Your task to perform on an android device: Do I have any events today? Image 0: 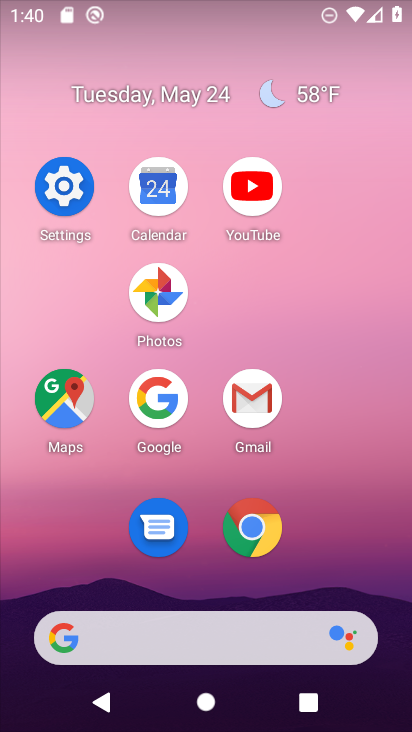
Step 0: click (169, 184)
Your task to perform on an android device: Do I have any events today? Image 1: 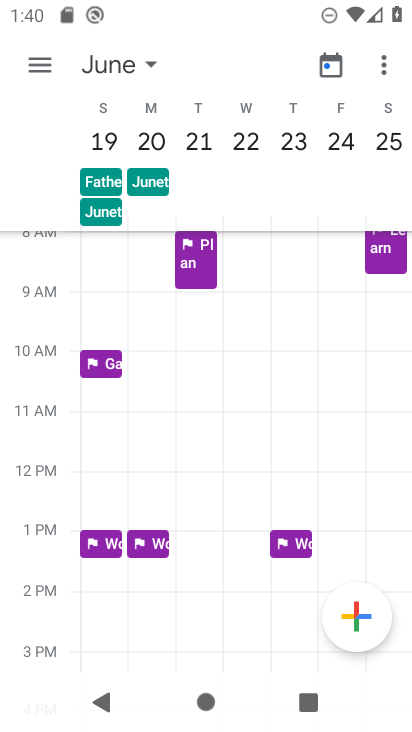
Step 1: click (103, 66)
Your task to perform on an android device: Do I have any events today? Image 2: 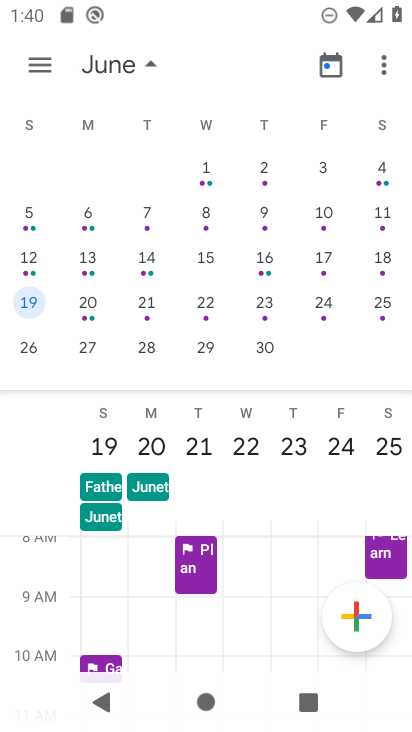
Step 2: drag from (26, 214) to (408, 731)
Your task to perform on an android device: Do I have any events today? Image 3: 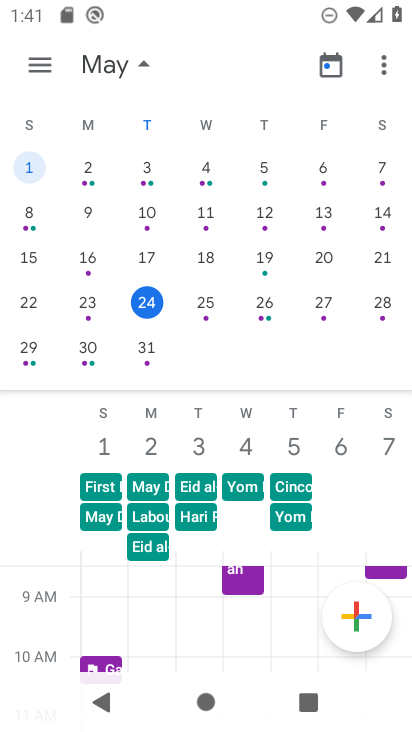
Step 3: click (214, 295)
Your task to perform on an android device: Do I have any events today? Image 4: 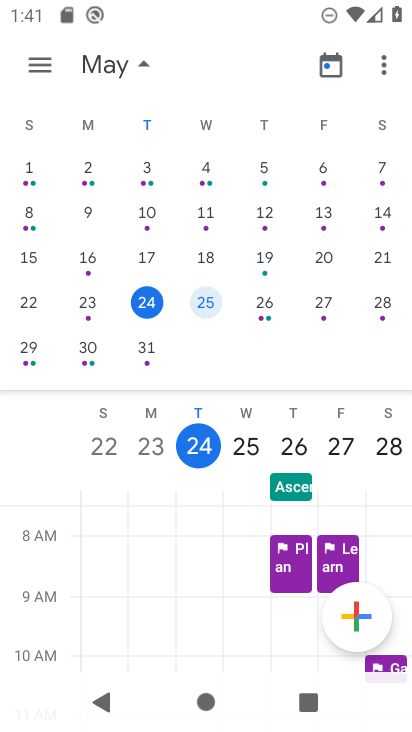
Step 4: click (248, 441)
Your task to perform on an android device: Do I have any events today? Image 5: 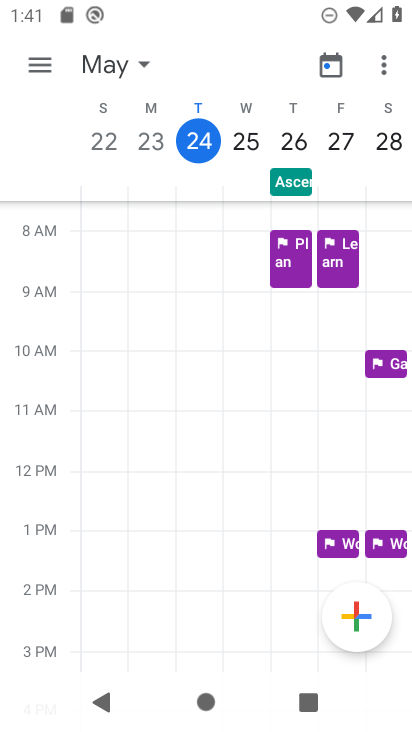
Step 5: task complete